Your task to perform on an android device: Check the weather Image 0: 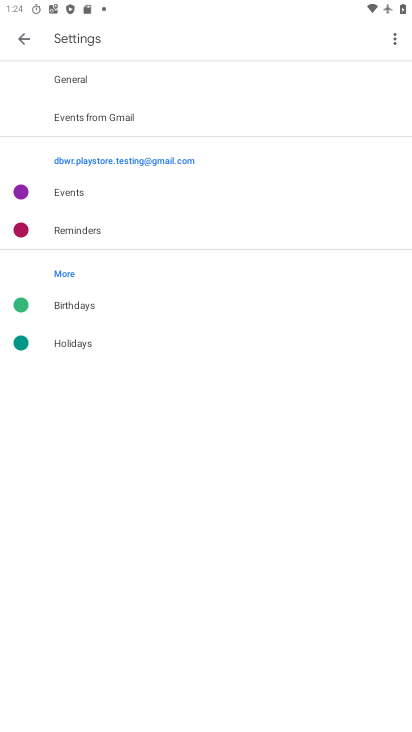
Step 0: press home button
Your task to perform on an android device: Check the weather Image 1: 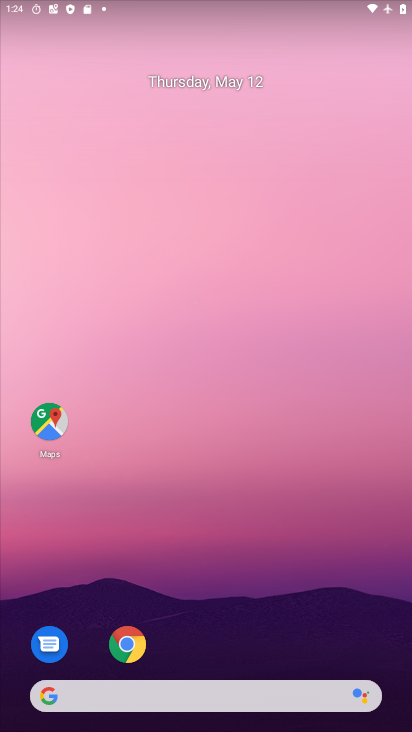
Step 1: drag from (248, 462) to (204, 40)
Your task to perform on an android device: Check the weather Image 2: 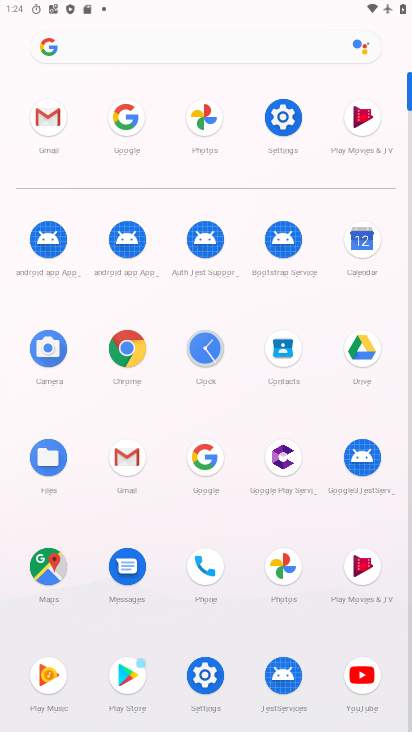
Step 2: click (133, 120)
Your task to perform on an android device: Check the weather Image 3: 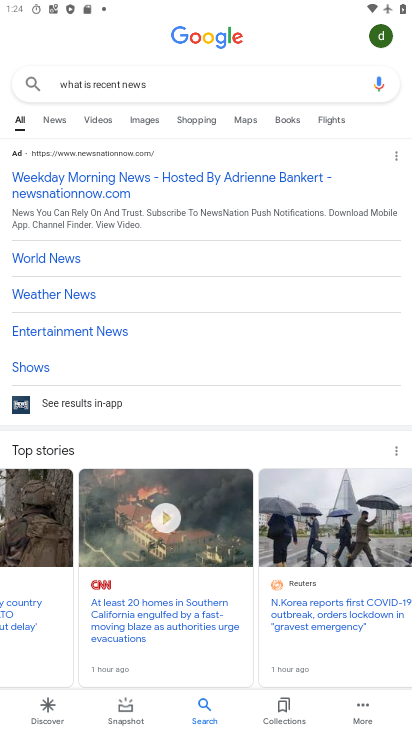
Step 3: click (143, 87)
Your task to perform on an android device: Check the weather Image 4: 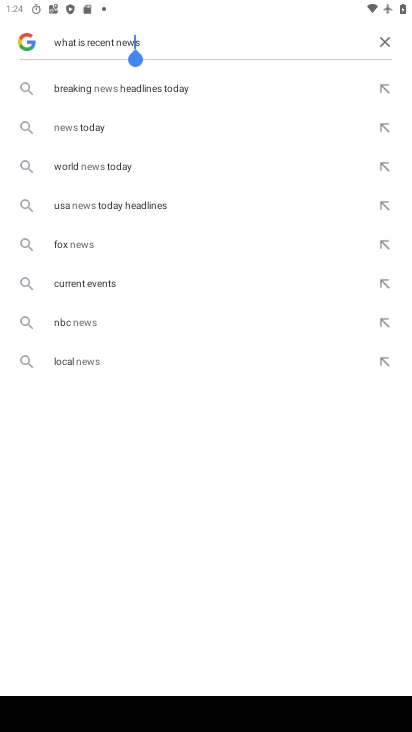
Step 4: click (170, 46)
Your task to perform on an android device: Check the weather Image 5: 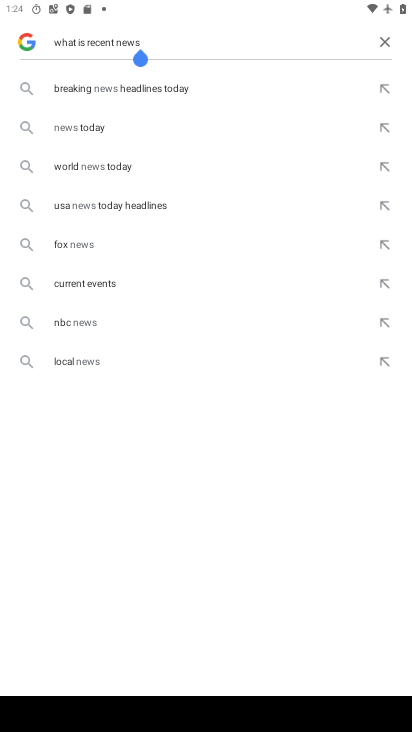
Step 5: click (383, 42)
Your task to perform on an android device: Check the weather Image 6: 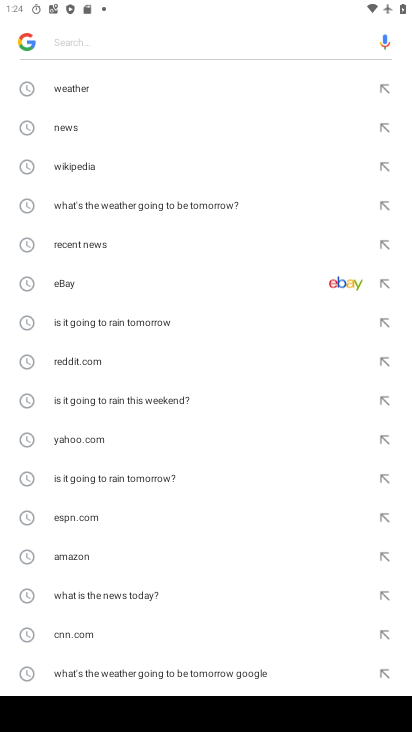
Step 6: click (94, 89)
Your task to perform on an android device: Check the weather Image 7: 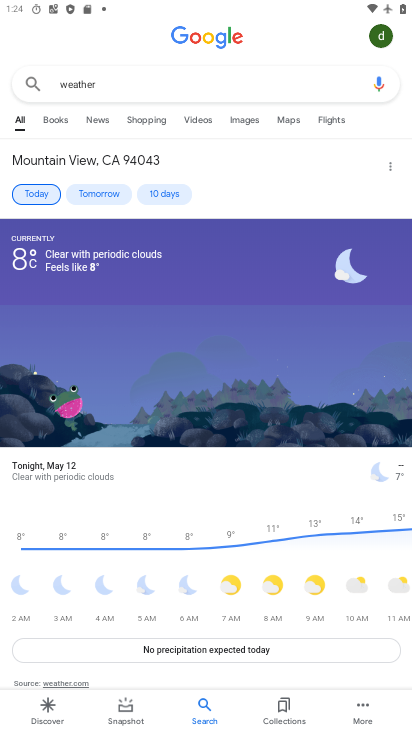
Step 7: task complete